Your task to perform on an android device: turn off smart reply in the gmail app Image 0: 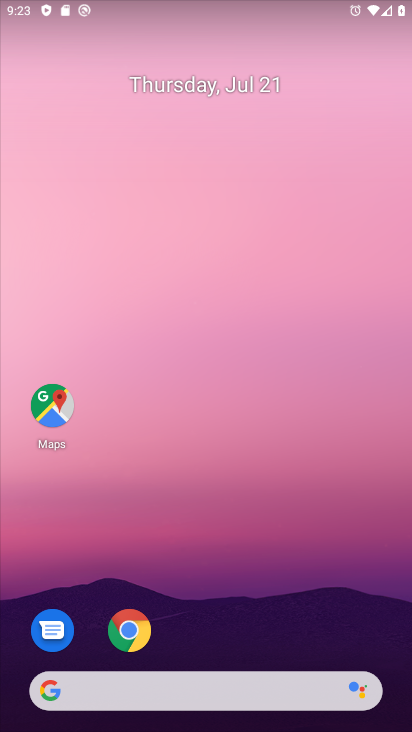
Step 0: drag from (219, 726) to (220, 278)
Your task to perform on an android device: turn off smart reply in the gmail app Image 1: 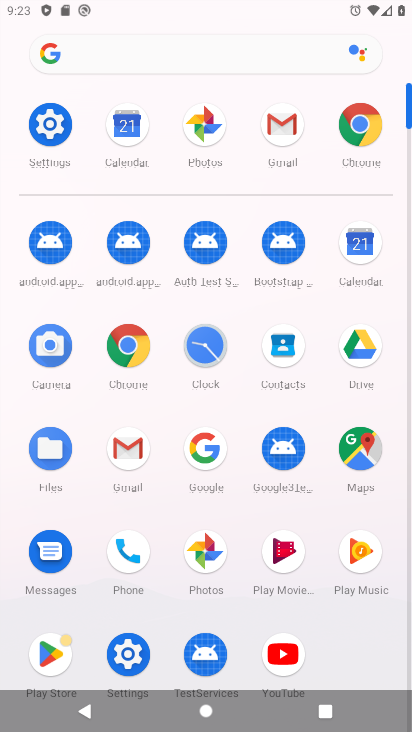
Step 1: click (129, 452)
Your task to perform on an android device: turn off smart reply in the gmail app Image 2: 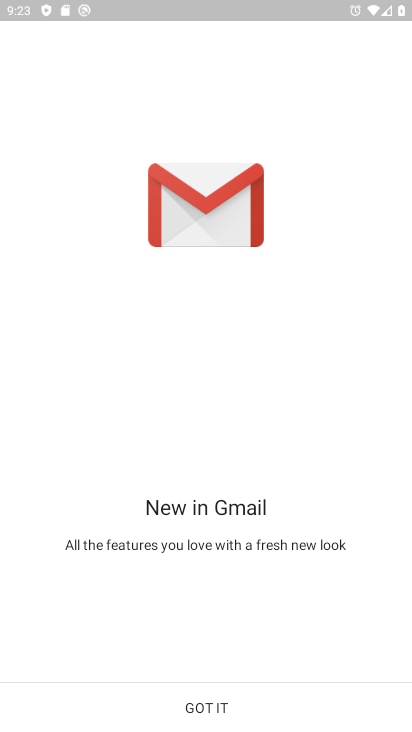
Step 2: click (197, 707)
Your task to perform on an android device: turn off smart reply in the gmail app Image 3: 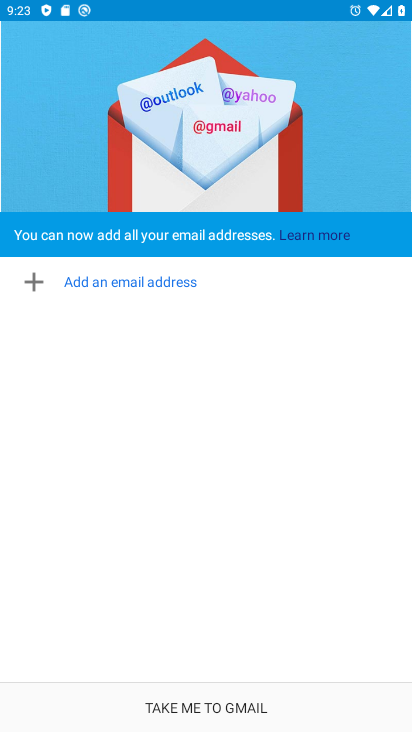
Step 3: task complete